Your task to perform on an android device: change keyboard looks Image 0: 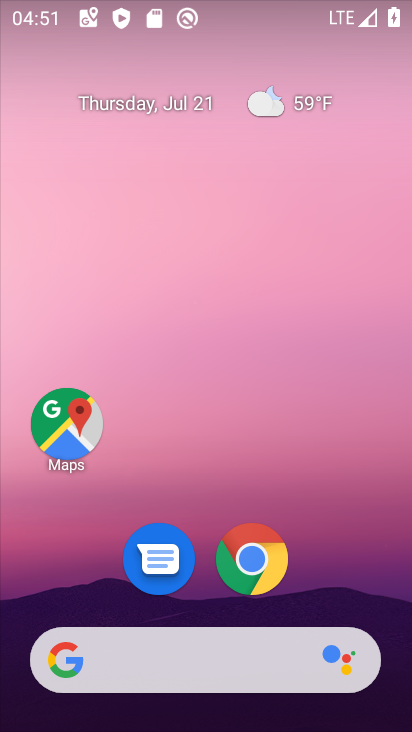
Step 0: drag from (151, 567) to (171, 28)
Your task to perform on an android device: change keyboard looks Image 1: 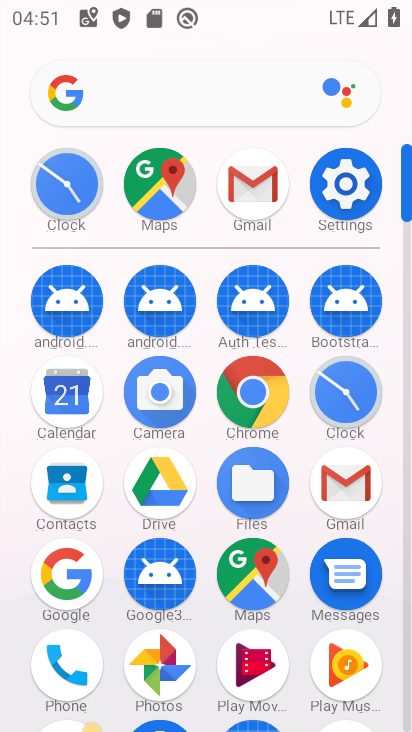
Step 1: click (348, 185)
Your task to perform on an android device: change keyboard looks Image 2: 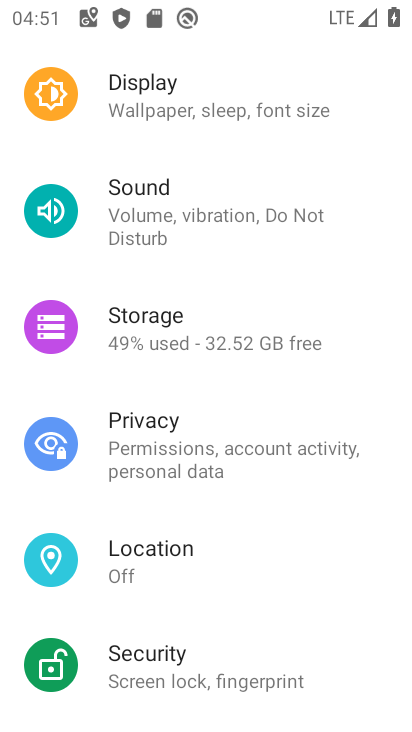
Step 2: drag from (187, 659) to (220, 2)
Your task to perform on an android device: change keyboard looks Image 3: 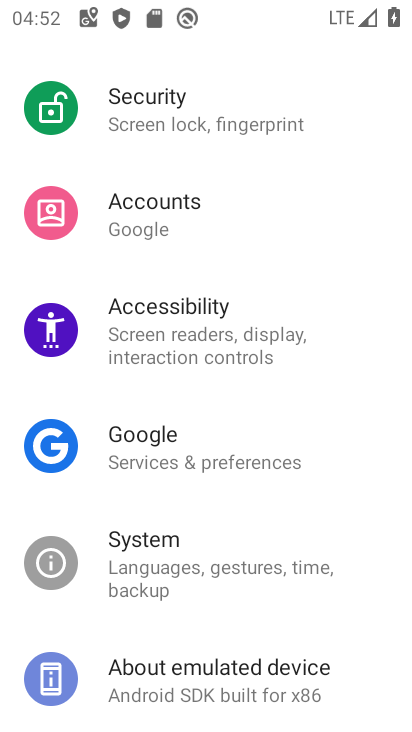
Step 3: drag from (200, 654) to (224, 143)
Your task to perform on an android device: change keyboard looks Image 4: 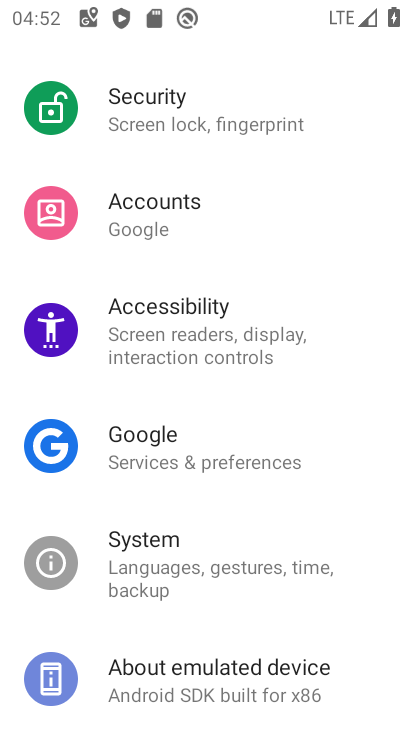
Step 4: click (150, 550)
Your task to perform on an android device: change keyboard looks Image 5: 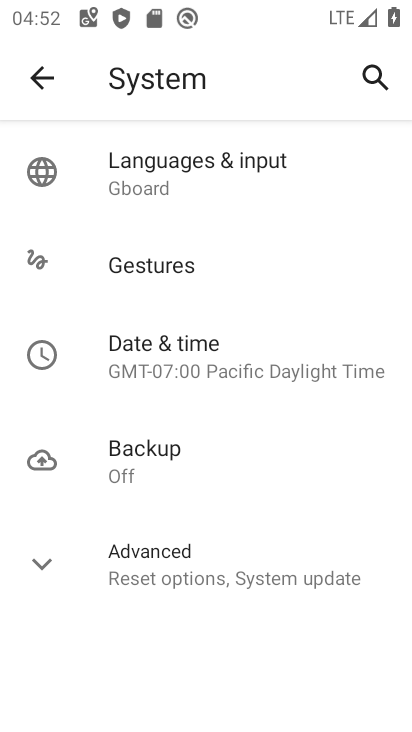
Step 5: click (138, 186)
Your task to perform on an android device: change keyboard looks Image 6: 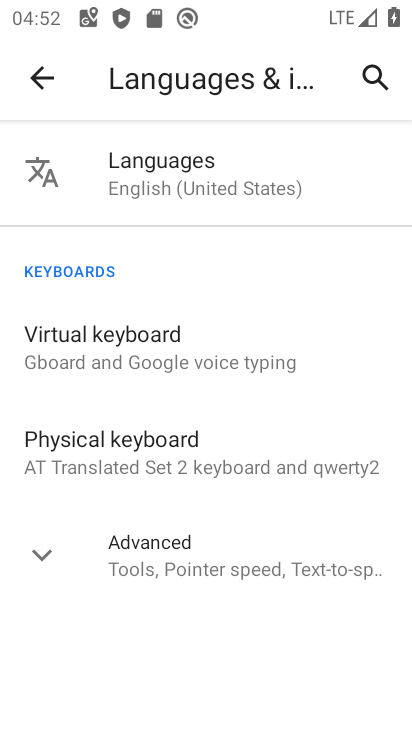
Step 6: click (104, 334)
Your task to perform on an android device: change keyboard looks Image 7: 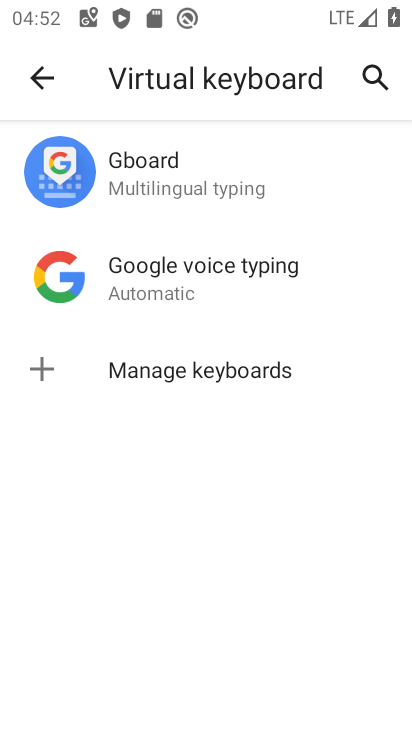
Step 7: click (122, 193)
Your task to perform on an android device: change keyboard looks Image 8: 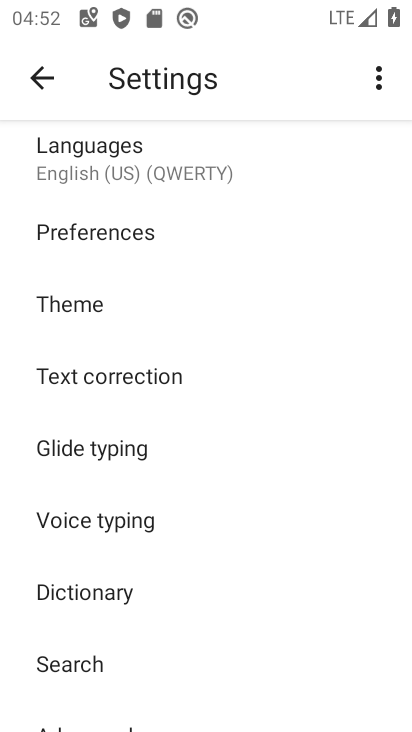
Step 8: click (142, 170)
Your task to perform on an android device: change keyboard looks Image 9: 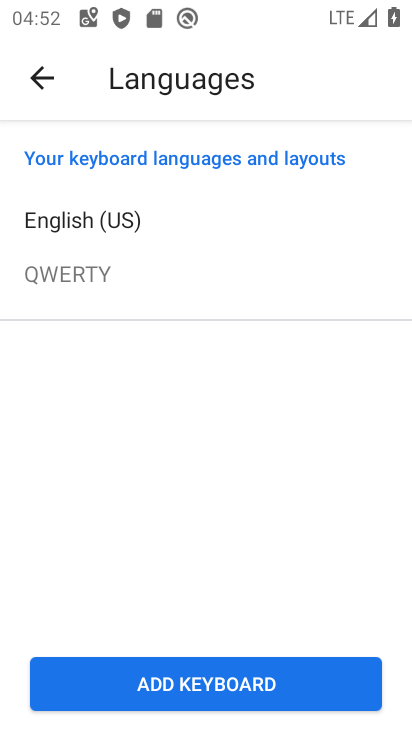
Step 9: click (42, 77)
Your task to perform on an android device: change keyboard looks Image 10: 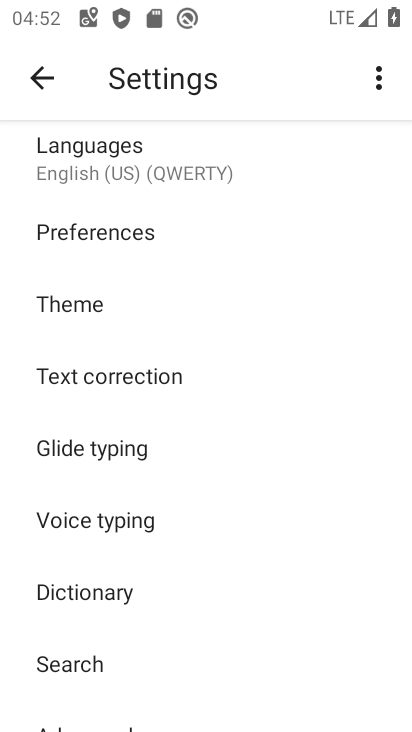
Step 10: click (63, 321)
Your task to perform on an android device: change keyboard looks Image 11: 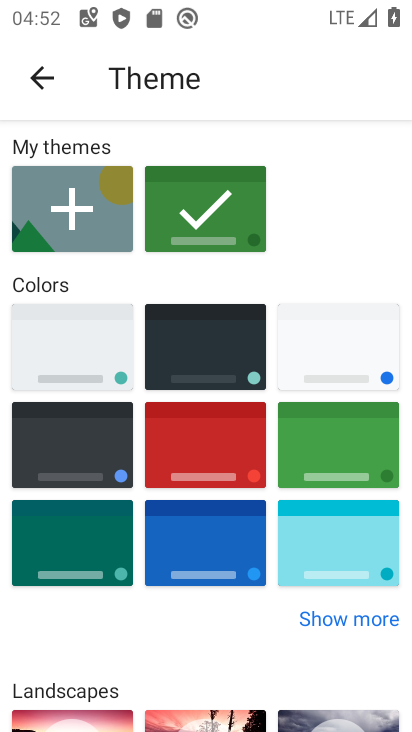
Step 11: click (365, 461)
Your task to perform on an android device: change keyboard looks Image 12: 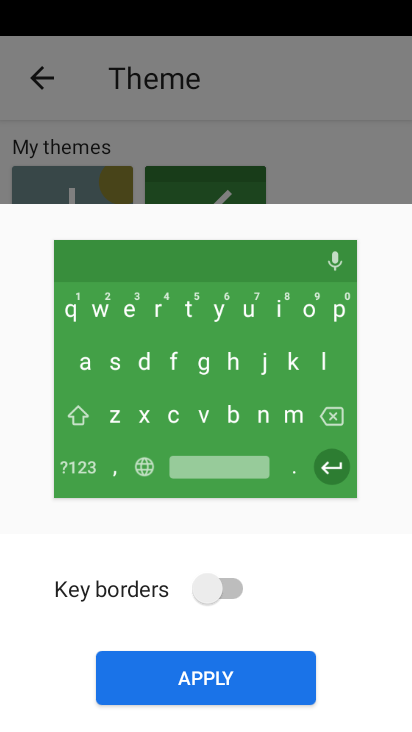
Step 12: click (158, 681)
Your task to perform on an android device: change keyboard looks Image 13: 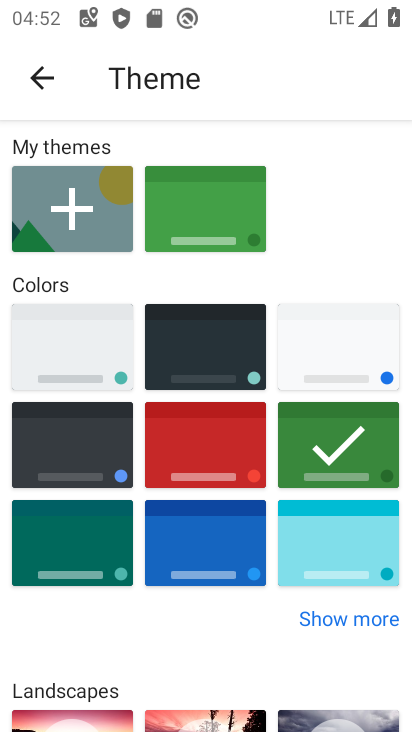
Step 13: task complete